Your task to perform on an android device: Go to accessibility settings Image 0: 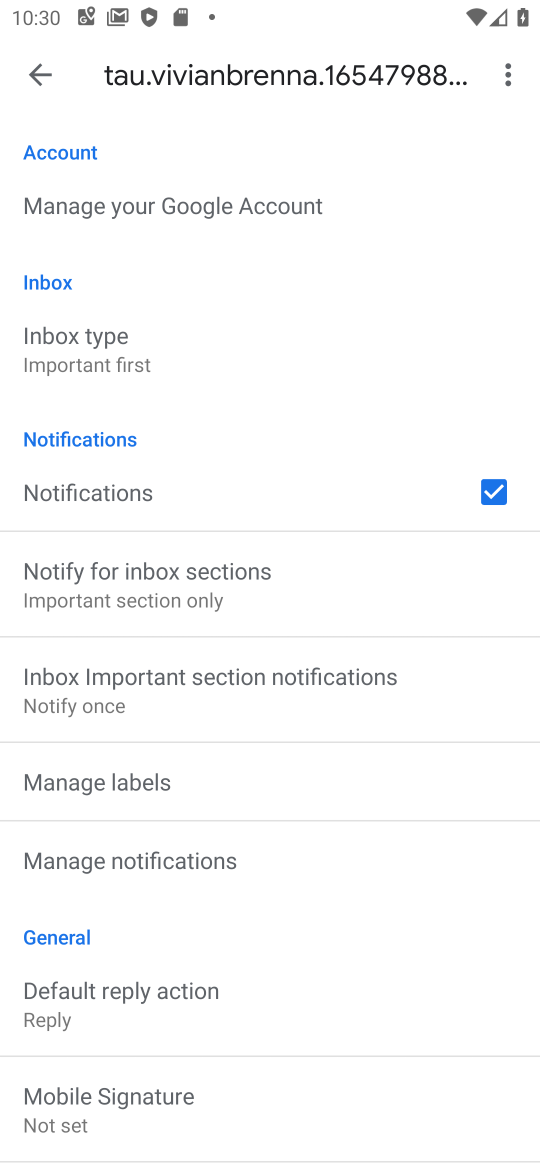
Step 0: press home button
Your task to perform on an android device: Go to accessibility settings Image 1: 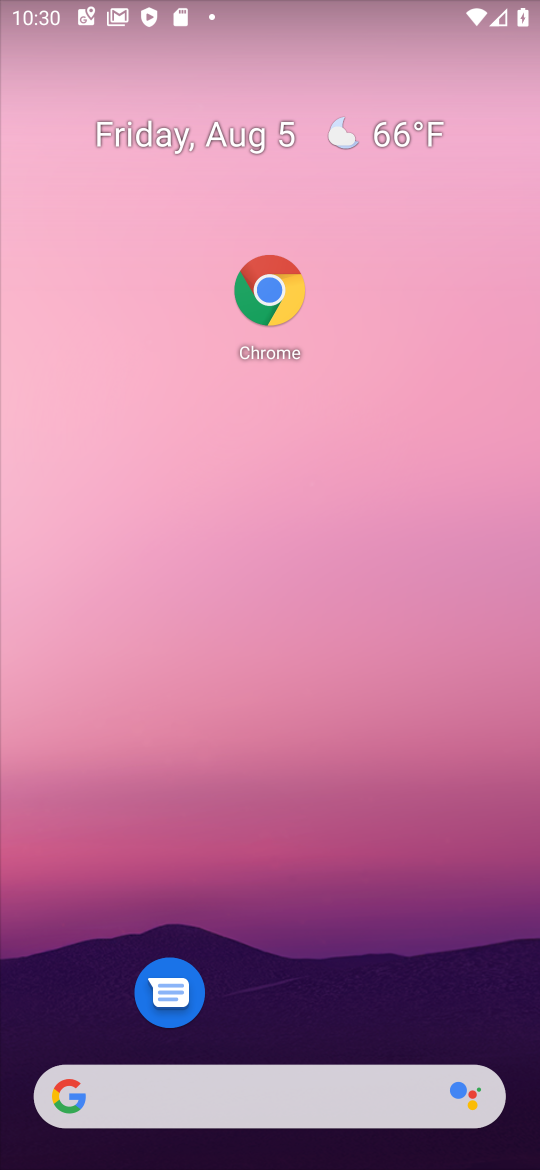
Step 1: drag from (330, 757) to (354, 1)
Your task to perform on an android device: Go to accessibility settings Image 2: 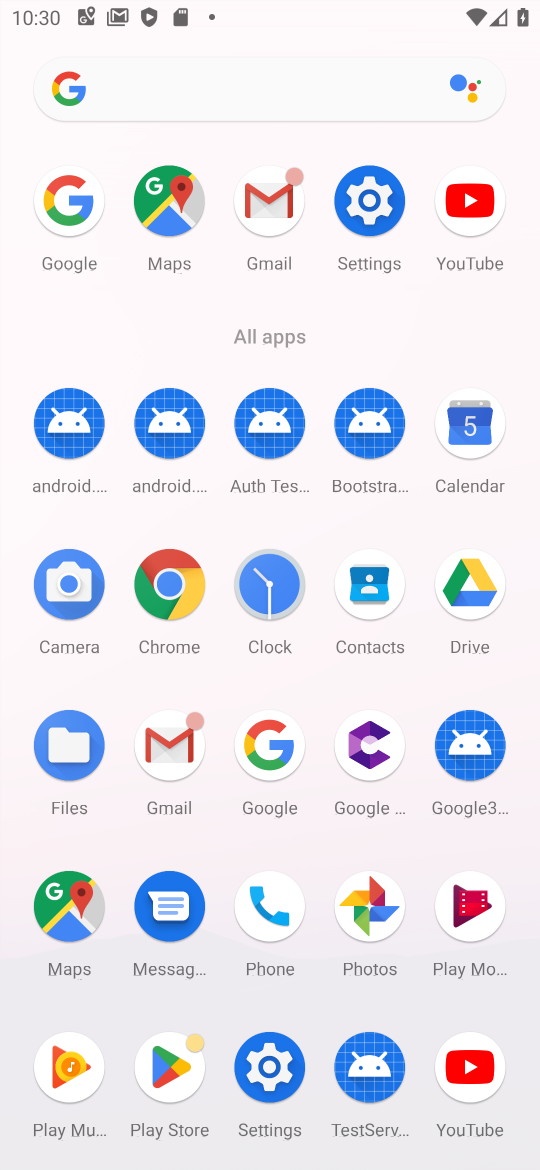
Step 2: click (363, 219)
Your task to perform on an android device: Go to accessibility settings Image 3: 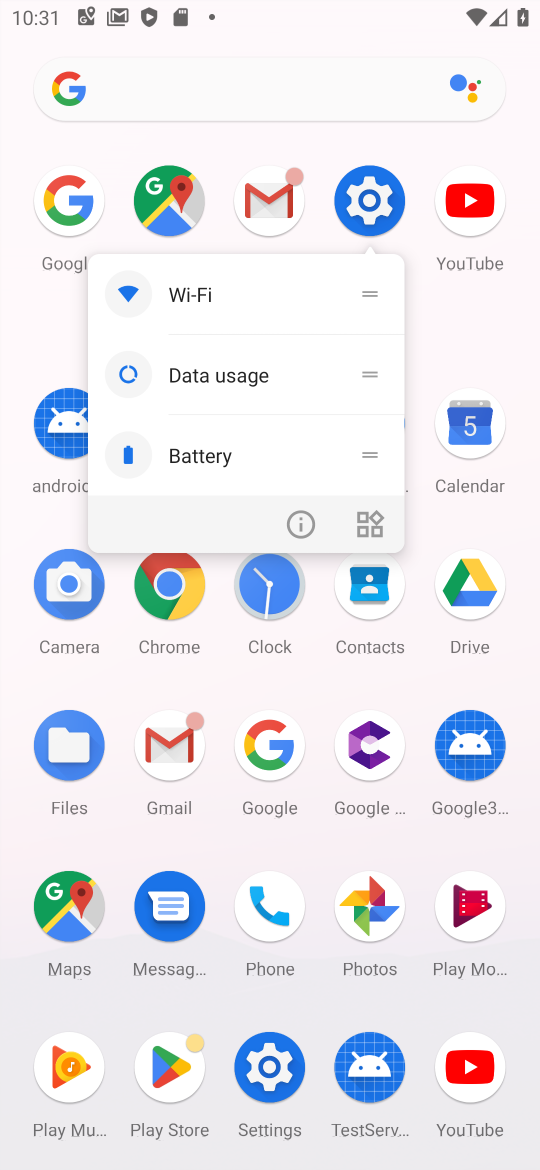
Step 3: click (376, 217)
Your task to perform on an android device: Go to accessibility settings Image 4: 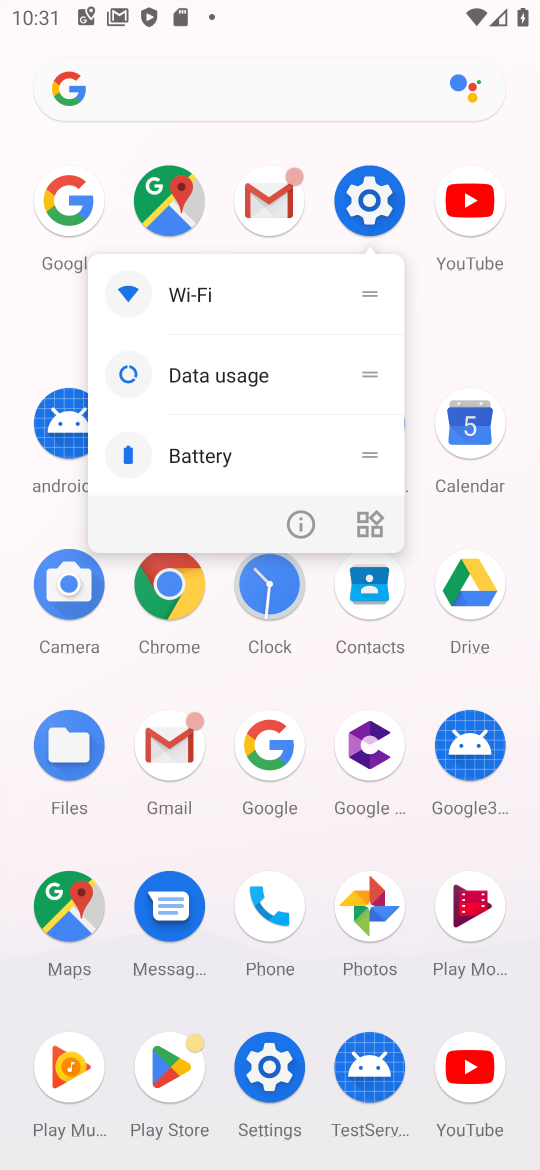
Step 4: click (349, 214)
Your task to perform on an android device: Go to accessibility settings Image 5: 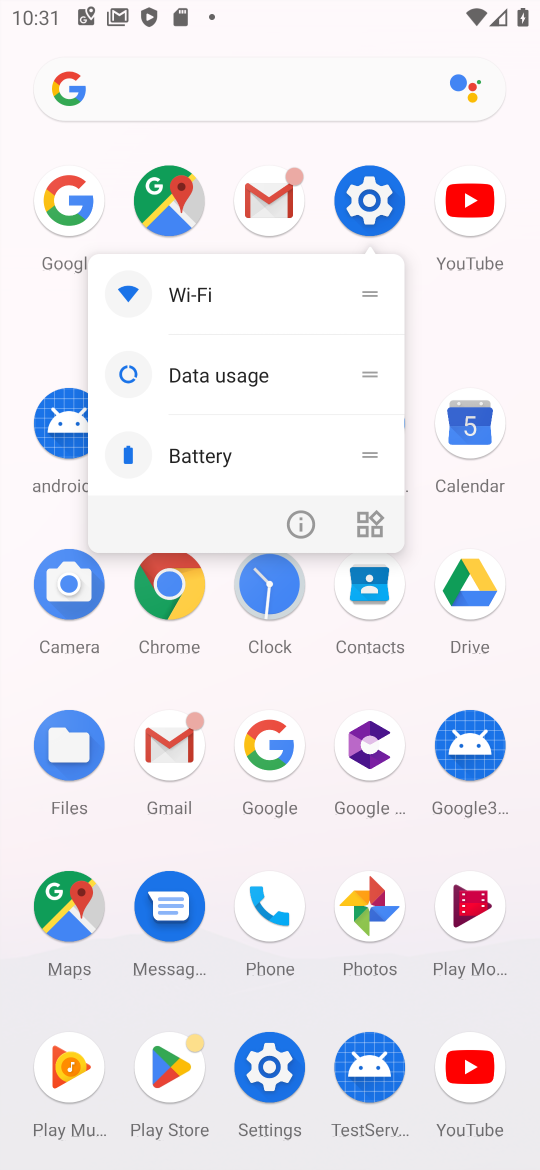
Step 5: click (349, 211)
Your task to perform on an android device: Go to accessibility settings Image 6: 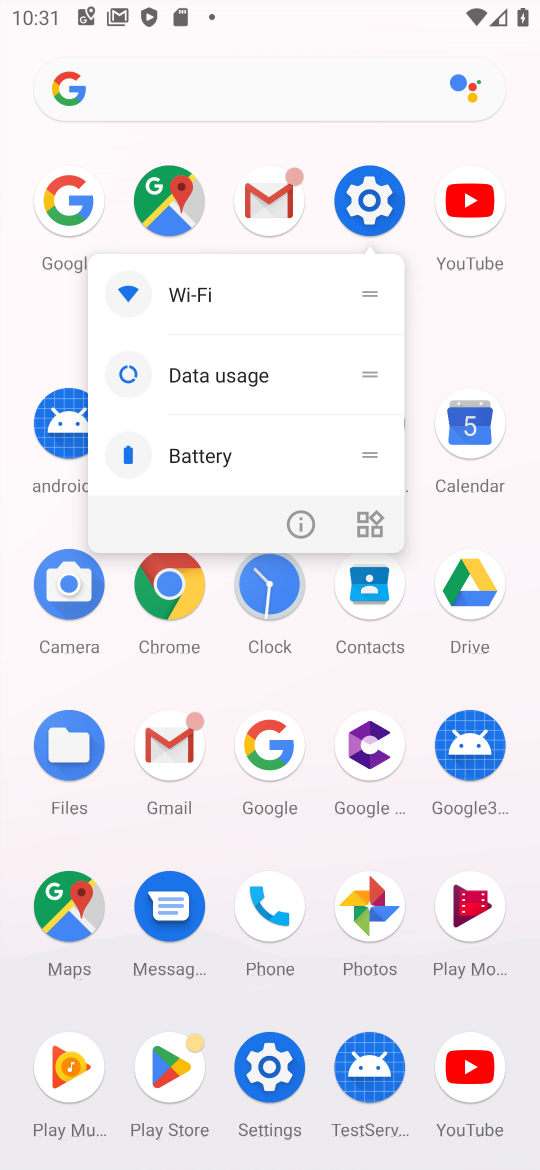
Step 6: click (344, 210)
Your task to perform on an android device: Go to accessibility settings Image 7: 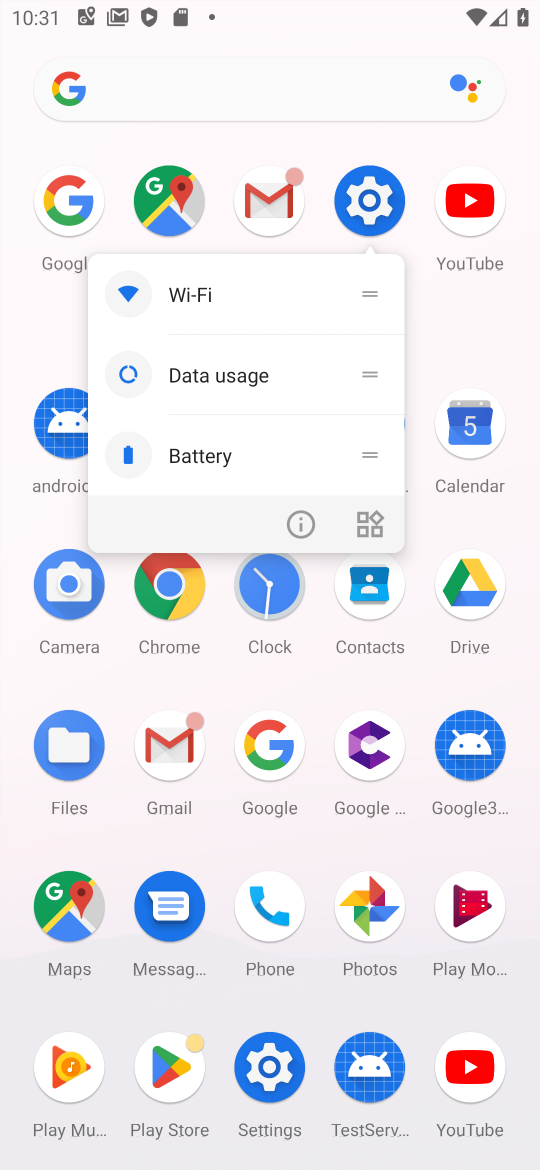
Step 7: click (344, 208)
Your task to perform on an android device: Go to accessibility settings Image 8: 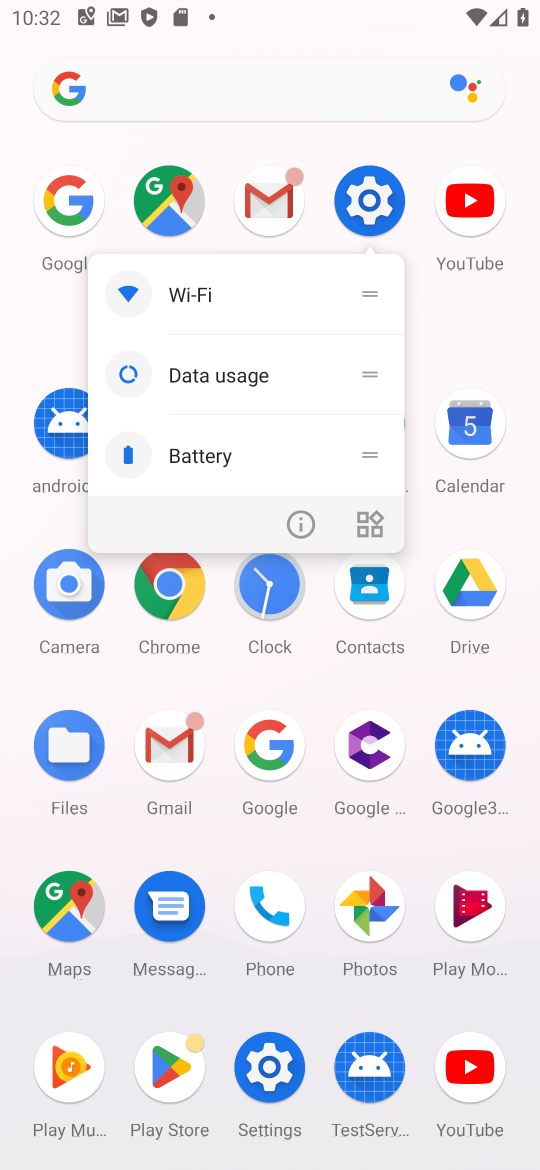
Step 8: click (344, 207)
Your task to perform on an android device: Go to accessibility settings Image 9: 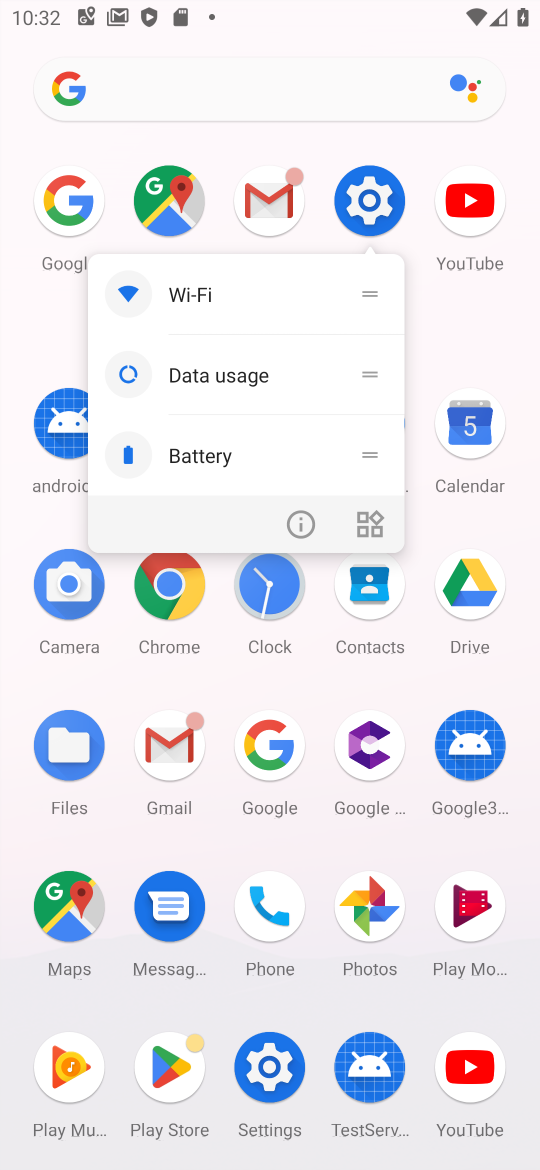
Step 9: click (344, 207)
Your task to perform on an android device: Go to accessibility settings Image 10: 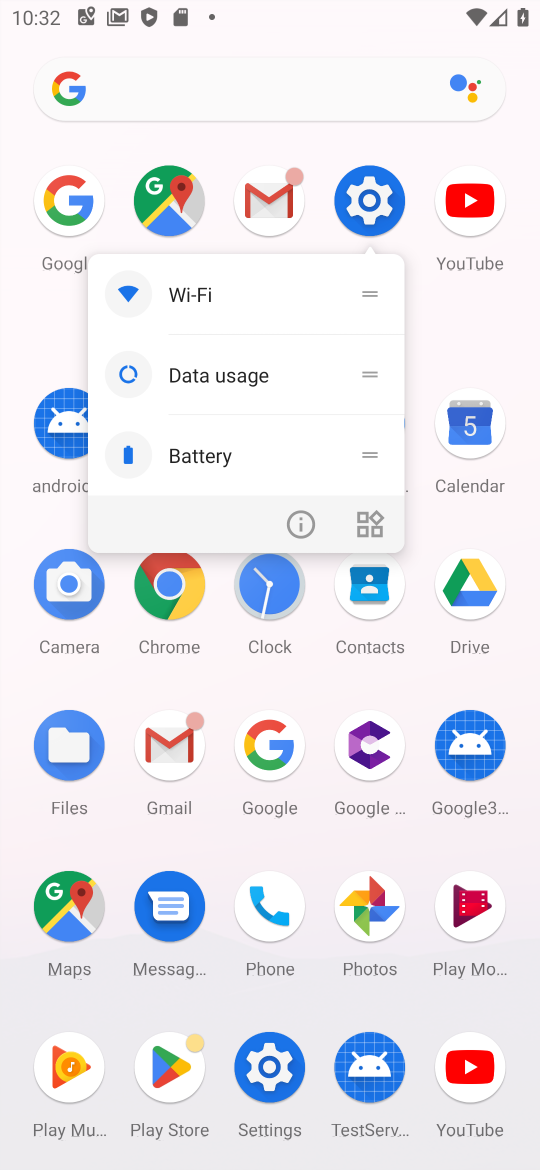
Step 10: click (345, 204)
Your task to perform on an android device: Go to accessibility settings Image 11: 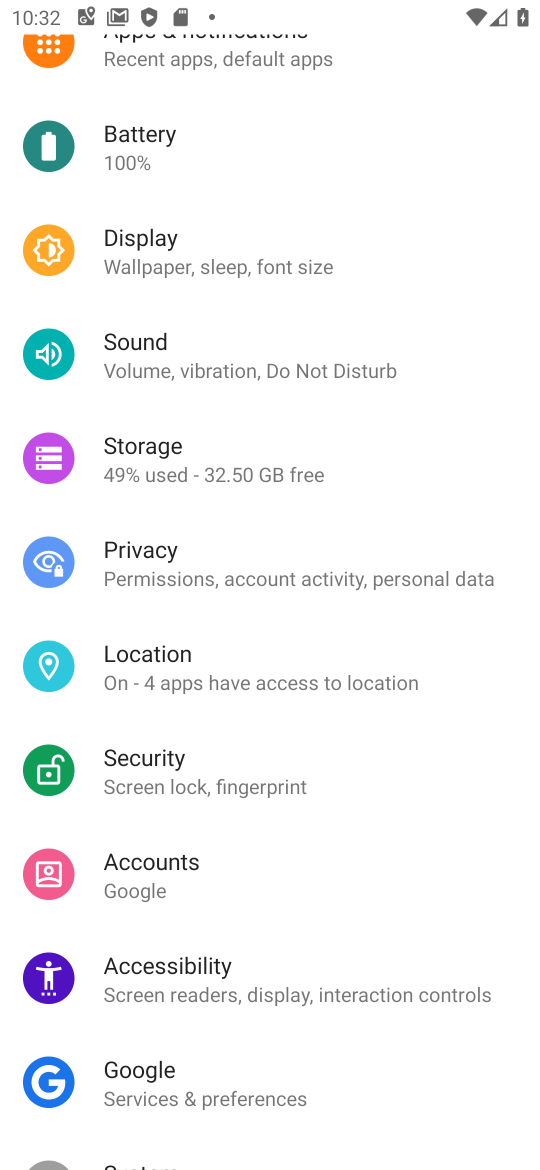
Step 11: click (138, 990)
Your task to perform on an android device: Go to accessibility settings Image 12: 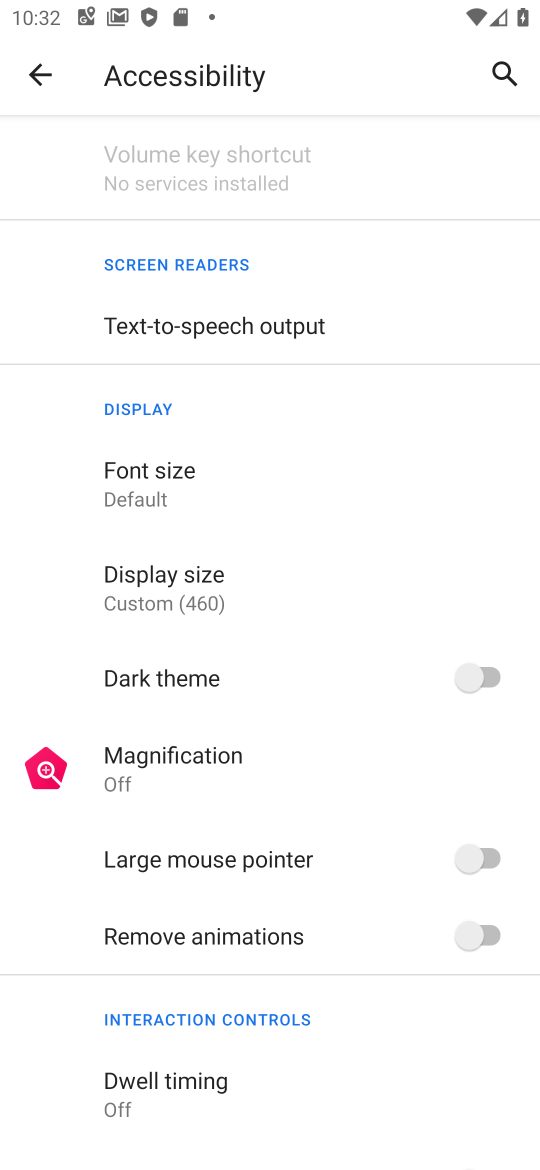
Step 12: task complete